Your task to perform on an android device: Turn on the flashlight Image 0: 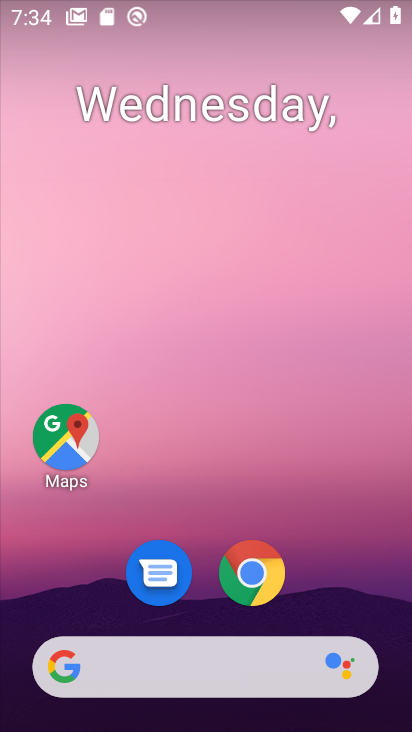
Step 0: drag from (200, 7) to (288, 625)
Your task to perform on an android device: Turn on the flashlight Image 1: 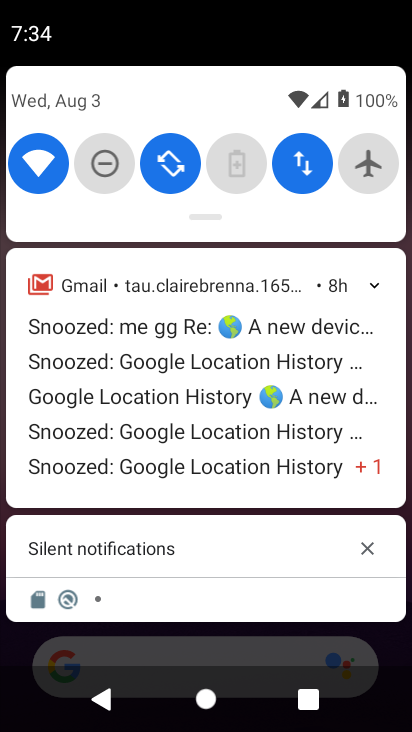
Step 1: task complete